Your task to perform on an android device: toggle airplane mode Image 0: 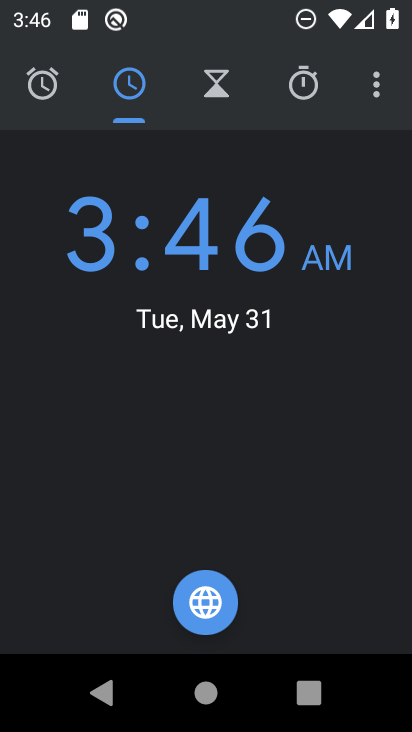
Step 0: press home button
Your task to perform on an android device: toggle airplane mode Image 1: 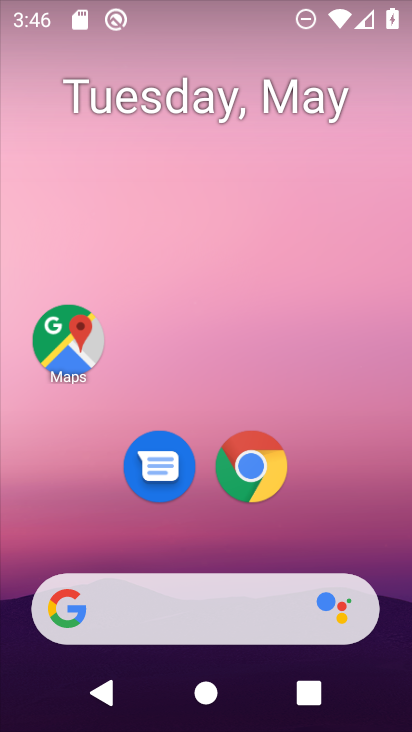
Step 1: drag from (220, 4) to (171, 353)
Your task to perform on an android device: toggle airplane mode Image 2: 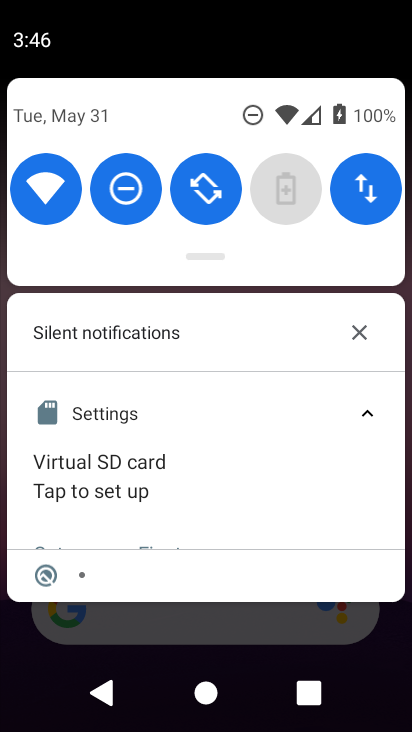
Step 2: drag from (276, 255) to (234, 570)
Your task to perform on an android device: toggle airplane mode Image 3: 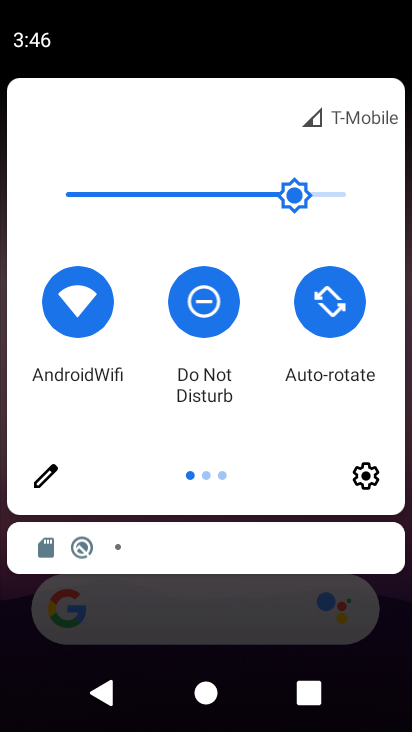
Step 3: drag from (377, 278) to (24, 267)
Your task to perform on an android device: toggle airplane mode Image 4: 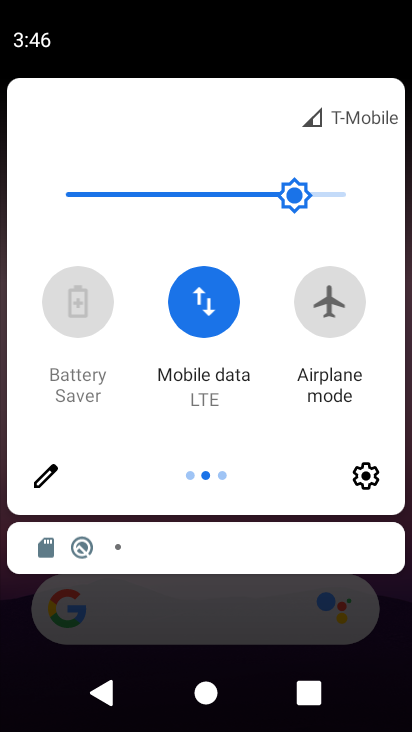
Step 4: click (327, 296)
Your task to perform on an android device: toggle airplane mode Image 5: 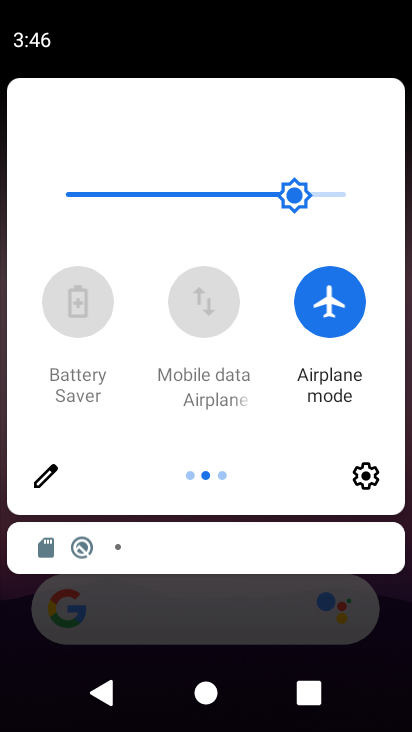
Step 5: task complete